Your task to perform on an android device: open the mobile data screen to see how much data has been used Image 0: 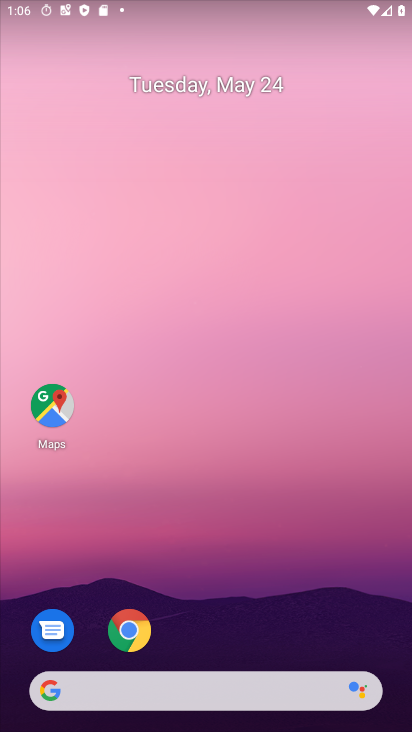
Step 0: drag from (325, 603) to (355, 32)
Your task to perform on an android device: open the mobile data screen to see how much data has been used Image 1: 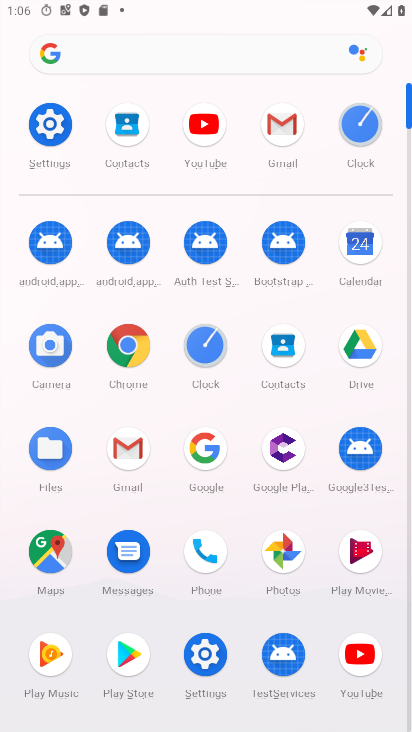
Step 1: click (40, 128)
Your task to perform on an android device: open the mobile data screen to see how much data has been used Image 2: 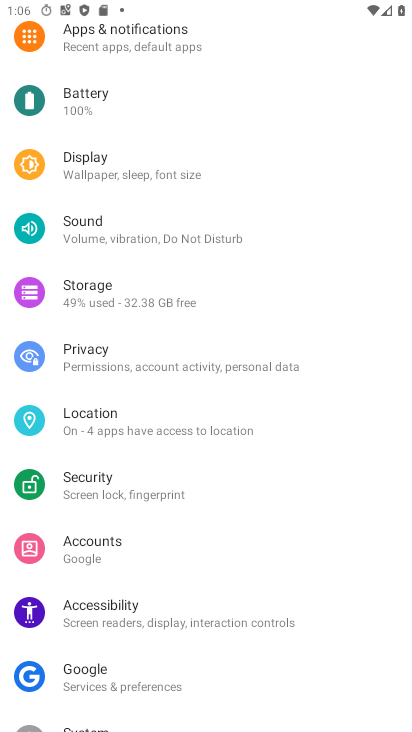
Step 2: drag from (324, 92) to (329, 373)
Your task to perform on an android device: open the mobile data screen to see how much data has been used Image 3: 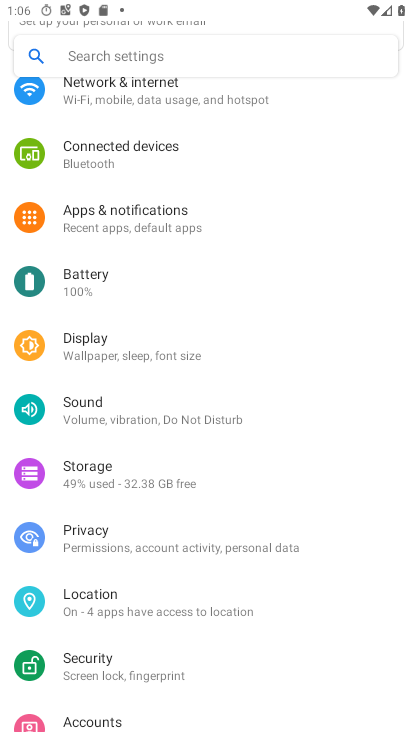
Step 3: drag from (338, 135) to (333, 294)
Your task to perform on an android device: open the mobile data screen to see how much data has been used Image 4: 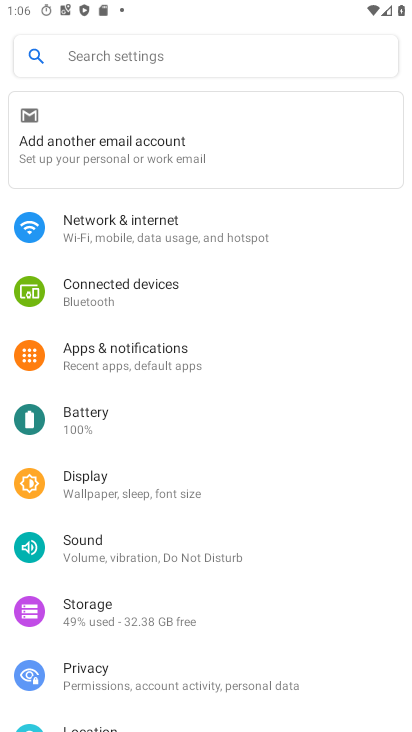
Step 4: click (115, 225)
Your task to perform on an android device: open the mobile data screen to see how much data has been used Image 5: 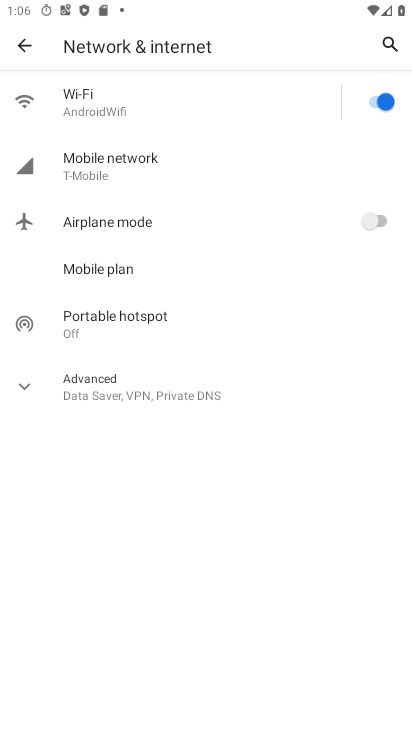
Step 5: click (106, 169)
Your task to perform on an android device: open the mobile data screen to see how much data has been used Image 6: 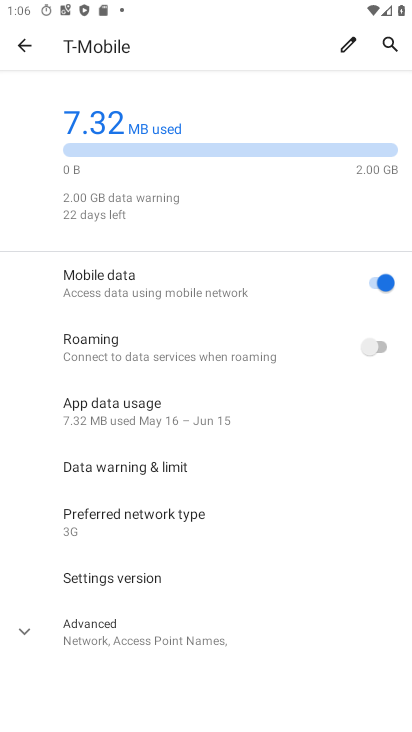
Step 6: click (101, 413)
Your task to perform on an android device: open the mobile data screen to see how much data has been used Image 7: 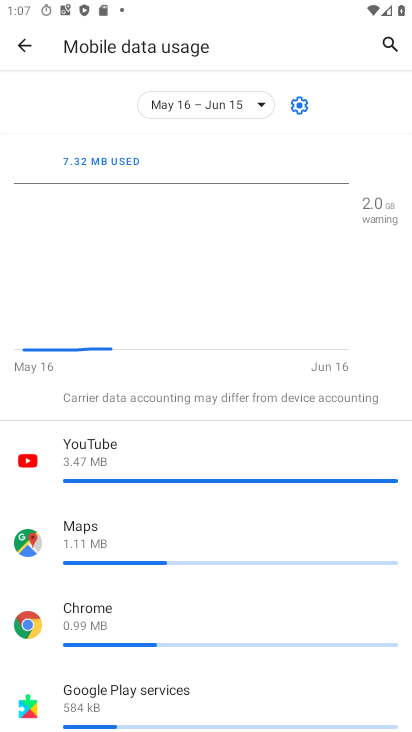
Step 7: task complete